Your task to perform on an android device: Go to Google Image 0: 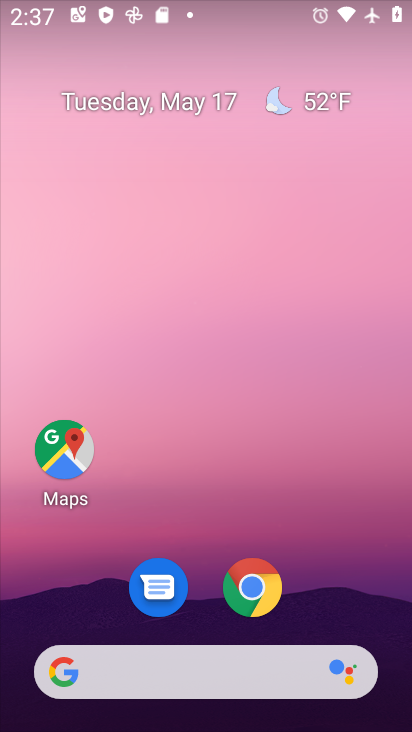
Step 0: click (254, 605)
Your task to perform on an android device: Go to Google Image 1: 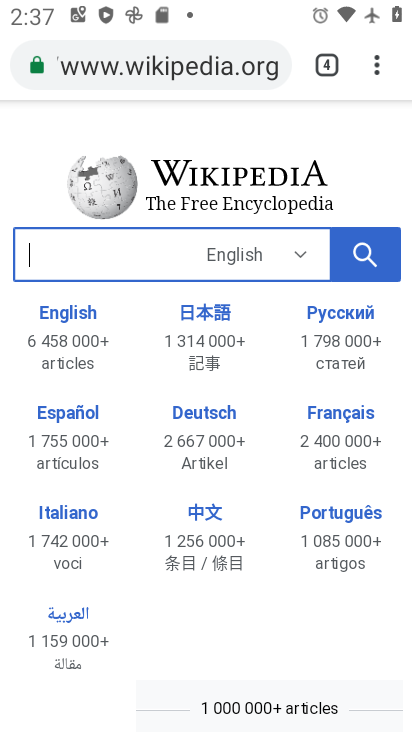
Step 1: click (222, 67)
Your task to perform on an android device: Go to Google Image 2: 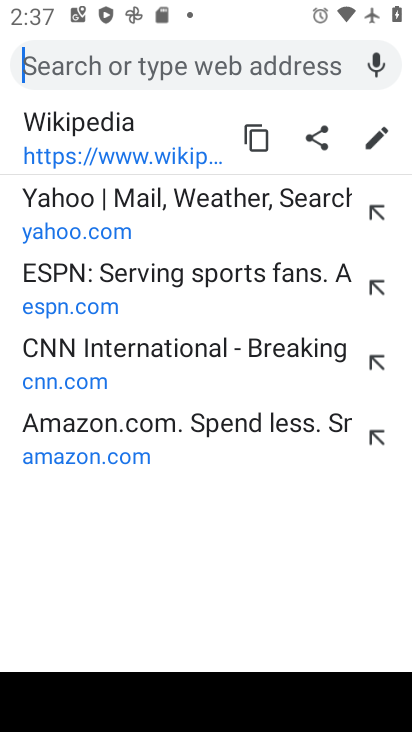
Step 2: type "google.com"
Your task to perform on an android device: Go to Google Image 3: 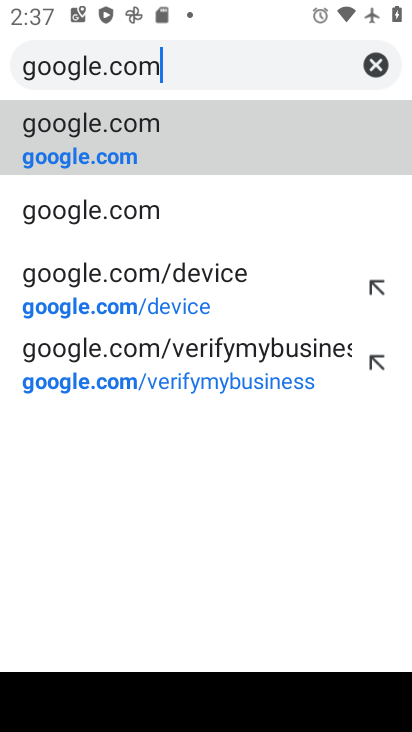
Step 3: click (184, 135)
Your task to perform on an android device: Go to Google Image 4: 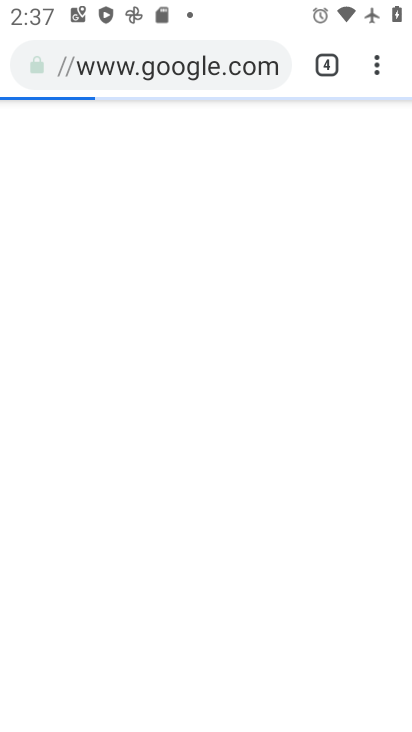
Step 4: task complete